Your task to perform on an android device: delete a single message in the gmail app Image 0: 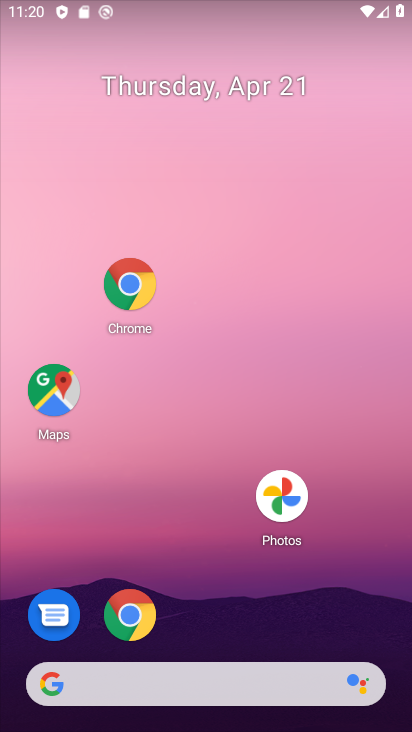
Step 0: drag from (237, 409) to (146, 30)
Your task to perform on an android device: delete a single message in the gmail app Image 1: 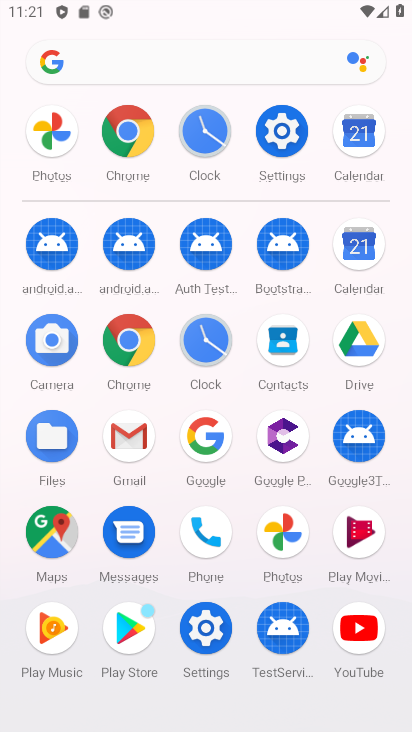
Step 1: click (124, 438)
Your task to perform on an android device: delete a single message in the gmail app Image 2: 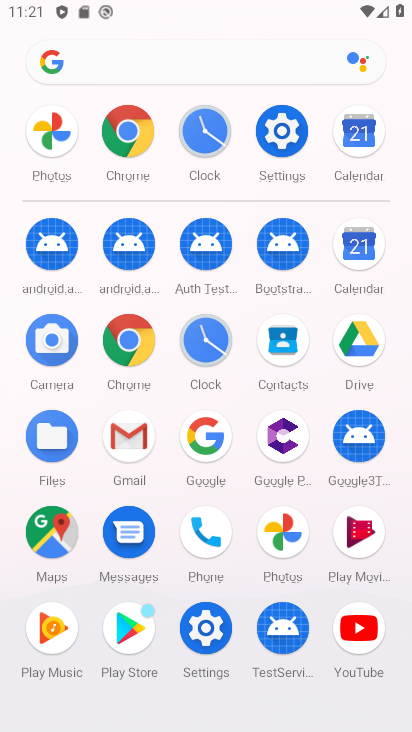
Step 2: click (125, 439)
Your task to perform on an android device: delete a single message in the gmail app Image 3: 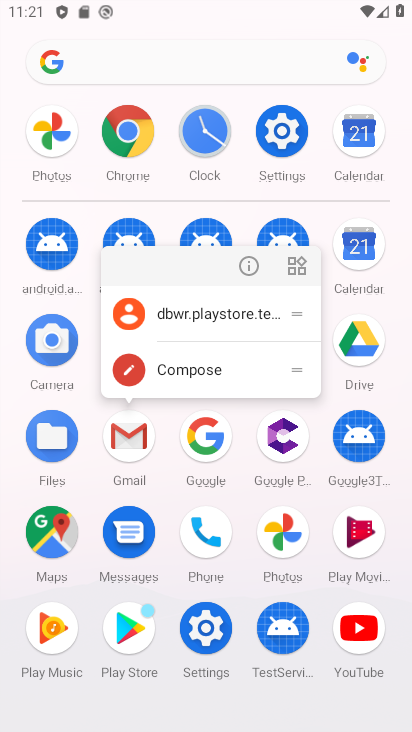
Step 3: click (185, 315)
Your task to perform on an android device: delete a single message in the gmail app Image 4: 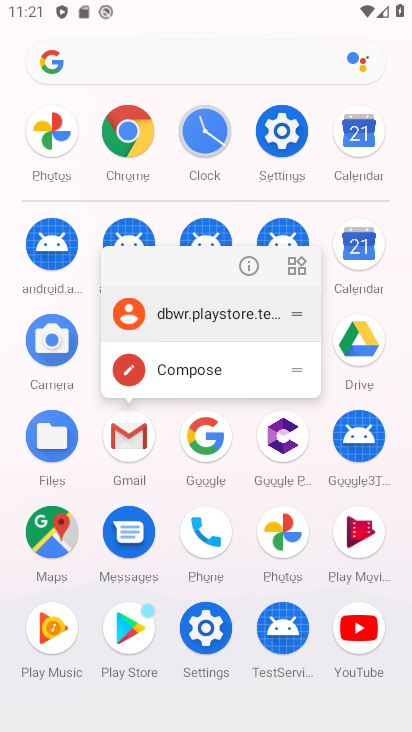
Step 4: click (186, 314)
Your task to perform on an android device: delete a single message in the gmail app Image 5: 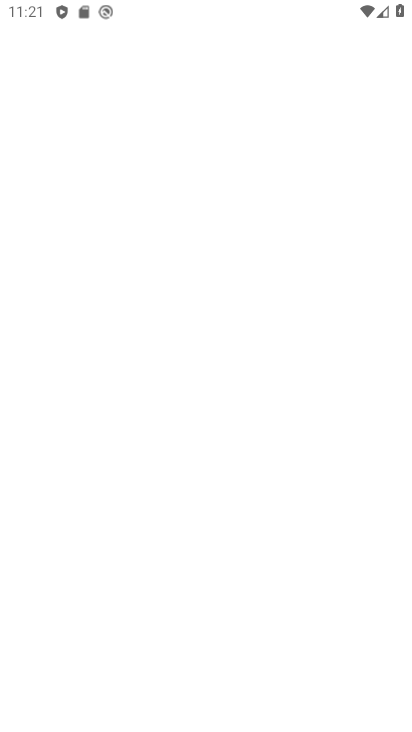
Step 5: click (186, 314)
Your task to perform on an android device: delete a single message in the gmail app Image 6: 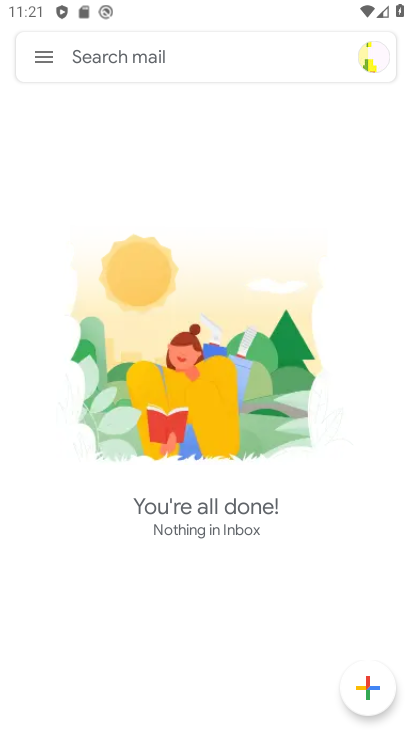
Step 6: click (48, 49)
Your task to perform on an android device: delete a single message in the gmail app Image 7: 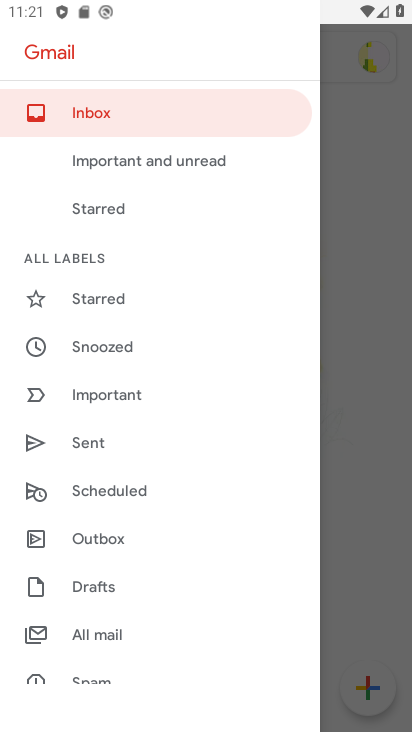
Step 7: click (99, 634)
Your task to perform on an android device: delete a single message in the gmail app Image 8: 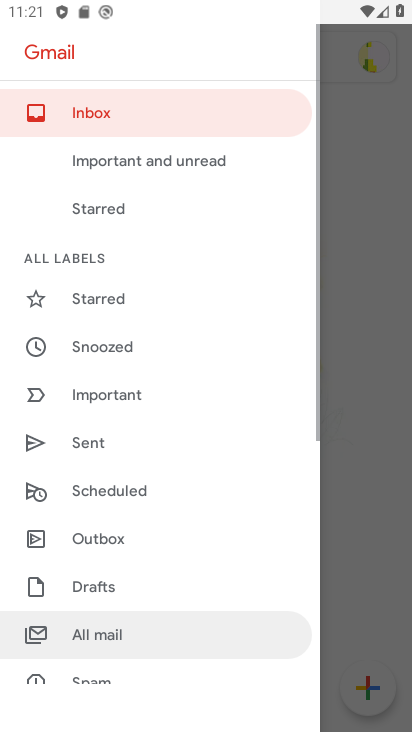
Step 8: click (99, 633)
Your task to perform on an android device: delete a single message in the gmail app Image 9: 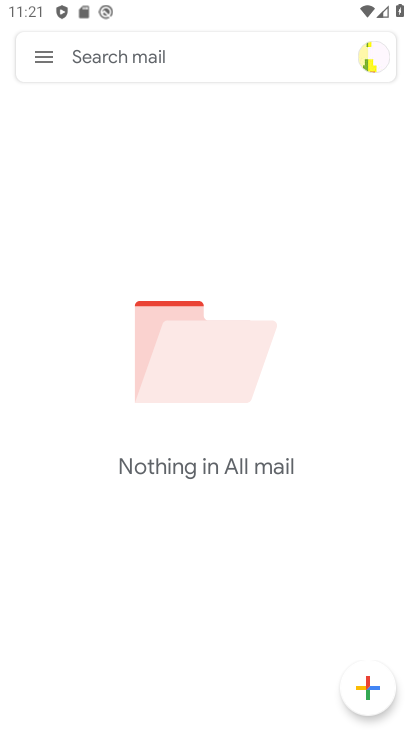
Step 9: task complete